Your task to perform on an android device: turn notification dots off Image 0: 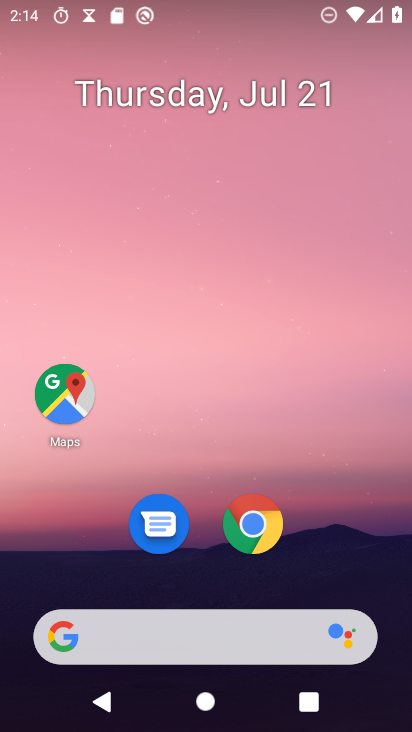
Step 0: drag from (209, 633) to (358, 130)
Your task to perform on an android device: turn notification dots off Image 1: 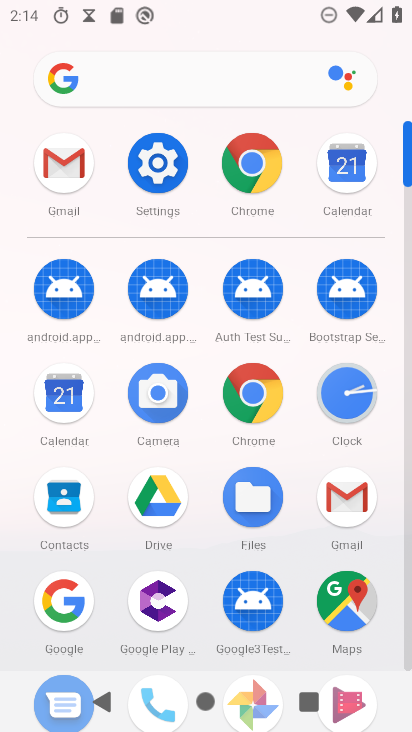
Step 1: click (153, 166)
Your task to perform on an android device: turn notification dots off Image 2: 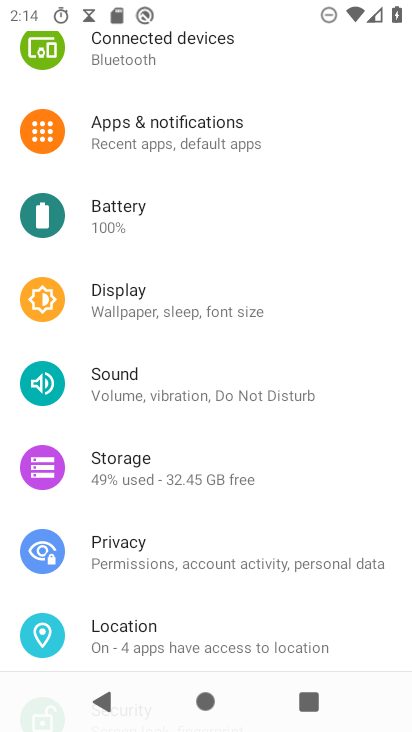
Step 2: click (211, 137)
Your task to perform on an android device: turn notification dots off Image 3: 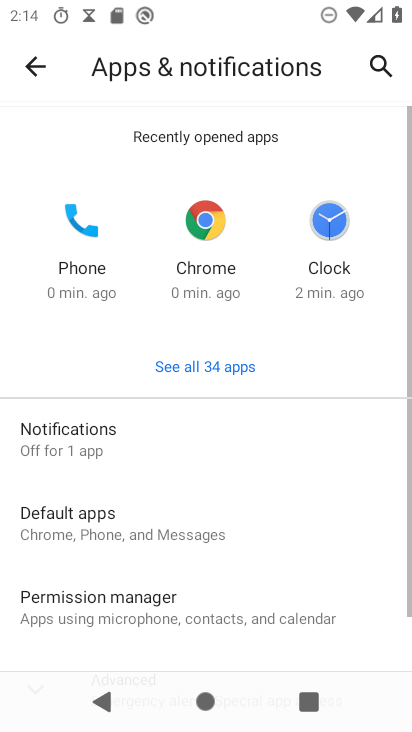
Step 3: click (78, 434)
Your task to perform on an android device: turn notification dots off Image 4: 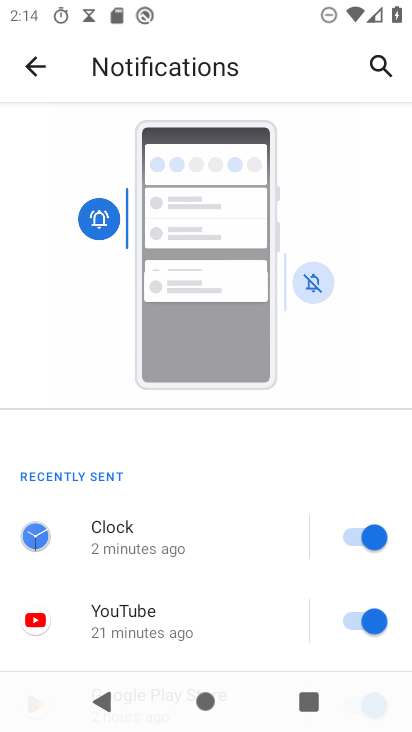
Step 4: drag from (228, 608) to (349, 142)
Your task to perform on an android device: turn notification dots off Image 5: 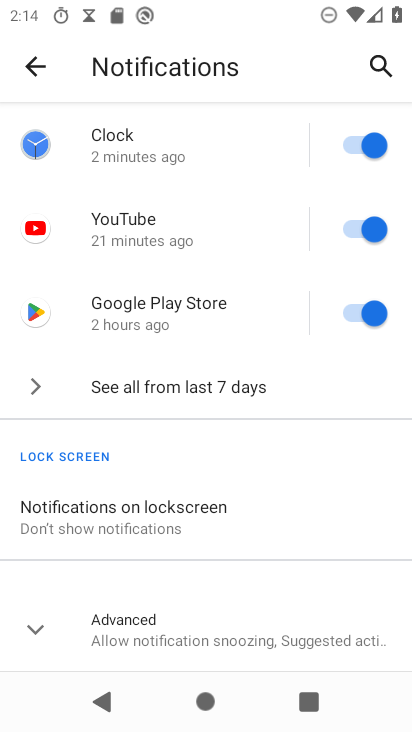
Step 5: drag from (230, 489) to (268, 121)
Your task to perform on an android device: turn notification dots off Image 6: 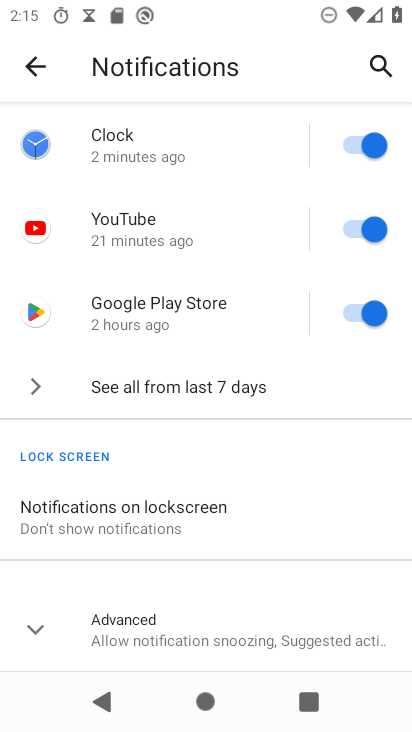
Step 6: click (134, 622)
Your task to perform on an android device: turn notification dots off Image 7: 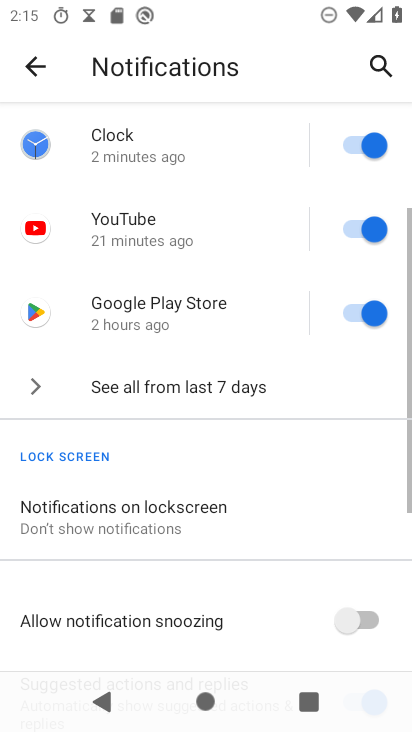
Step 7: task complete